Your task to perform on an android device: Install the Lyft app Image 0: 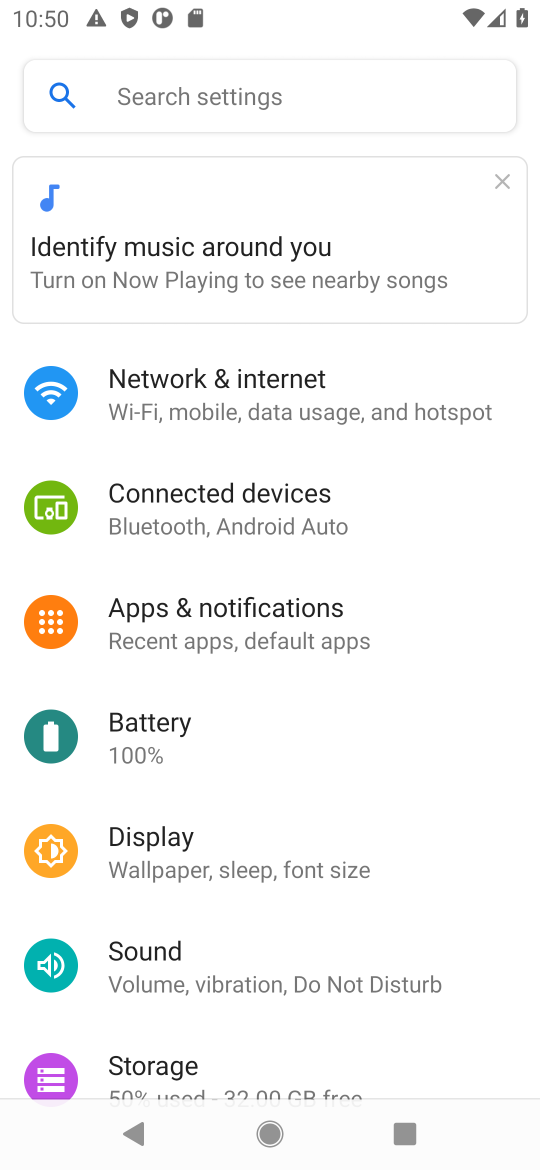
Step 0: press home button
Your task to perform on an android device: Install the Lyft app Image 1: 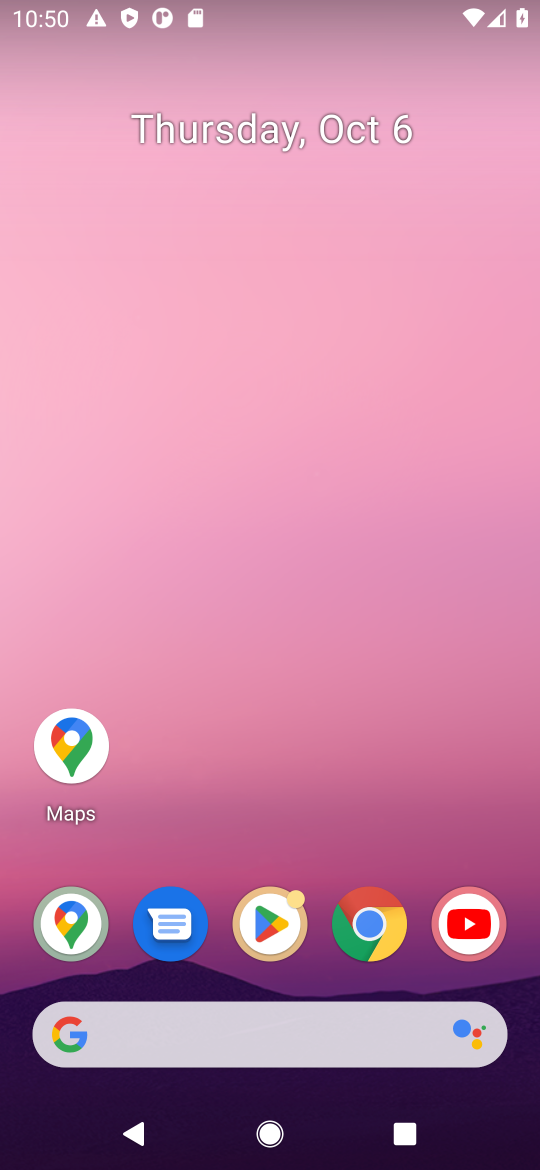
Step 1: drag from (230, 856) to (341, 253)
Your task to perform on an android device: Install the Lyft app Image 2: 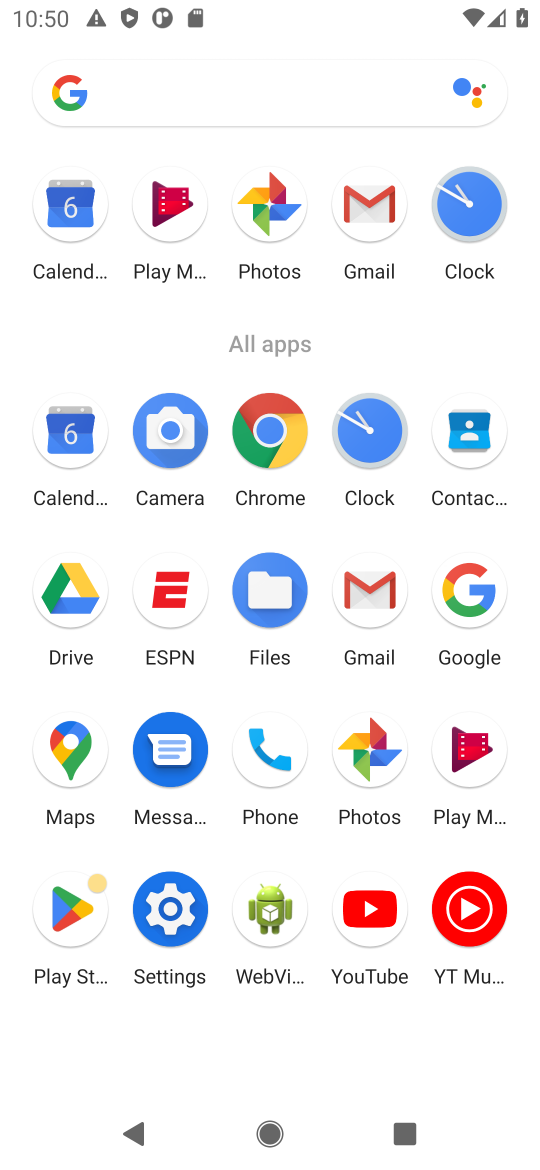
Step 2: click (63, 917)
Your task to perform on an android device: Install the Lyft app Image 3: 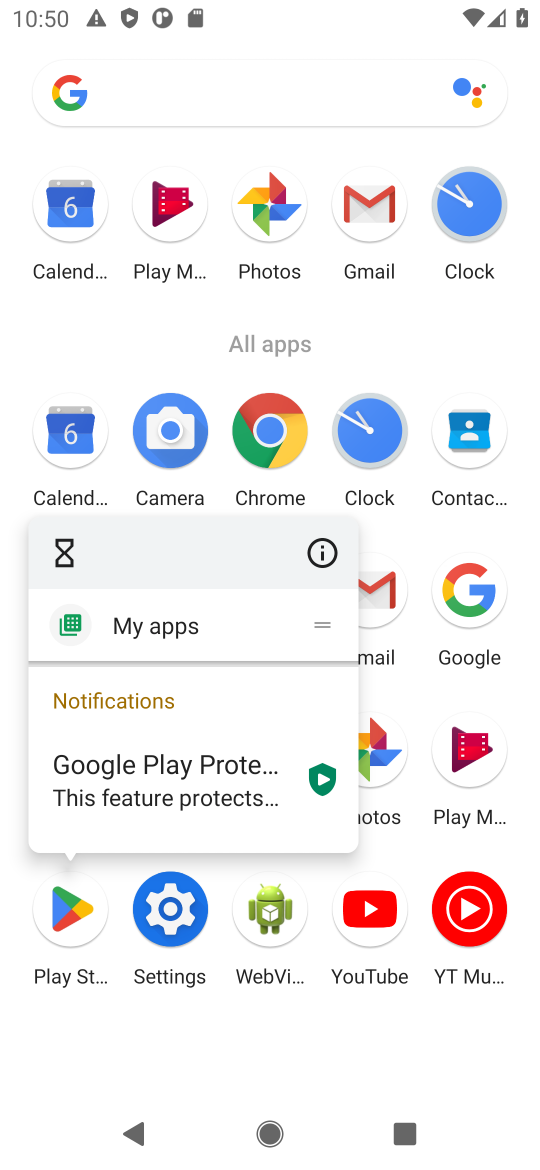
Step 3: click (75, 909)
Your task to perform on an android device: Install the Lyft app Image 4: 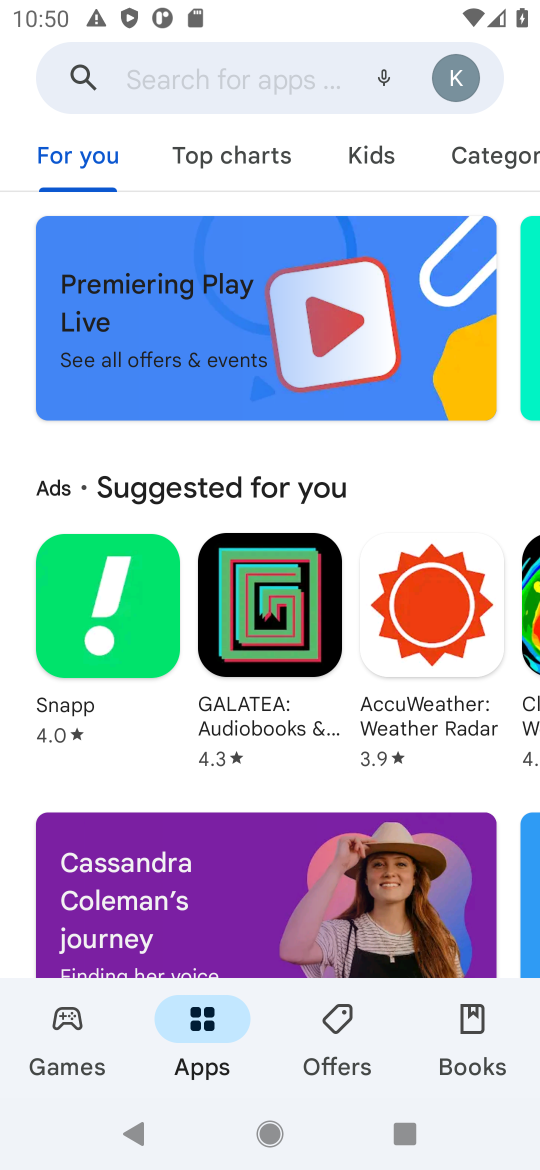
Step 4: click (285, 58)
Your task to perform on an android device: Install the Lyft app Image 5: 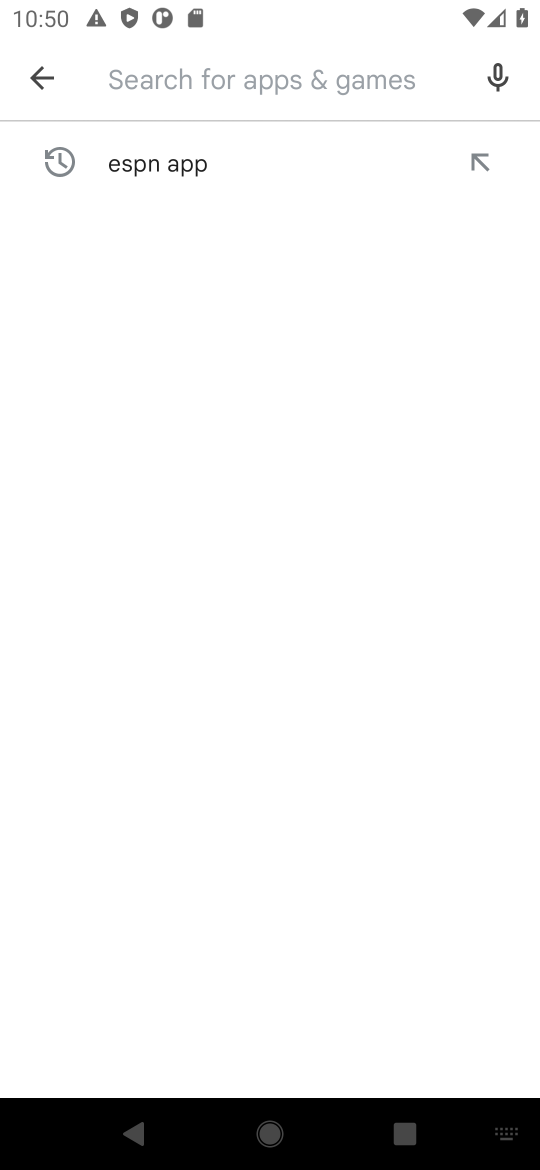
Step 5: type "Lyft app"
Your task to perform on an android device: Install the Lyft app Image 6: 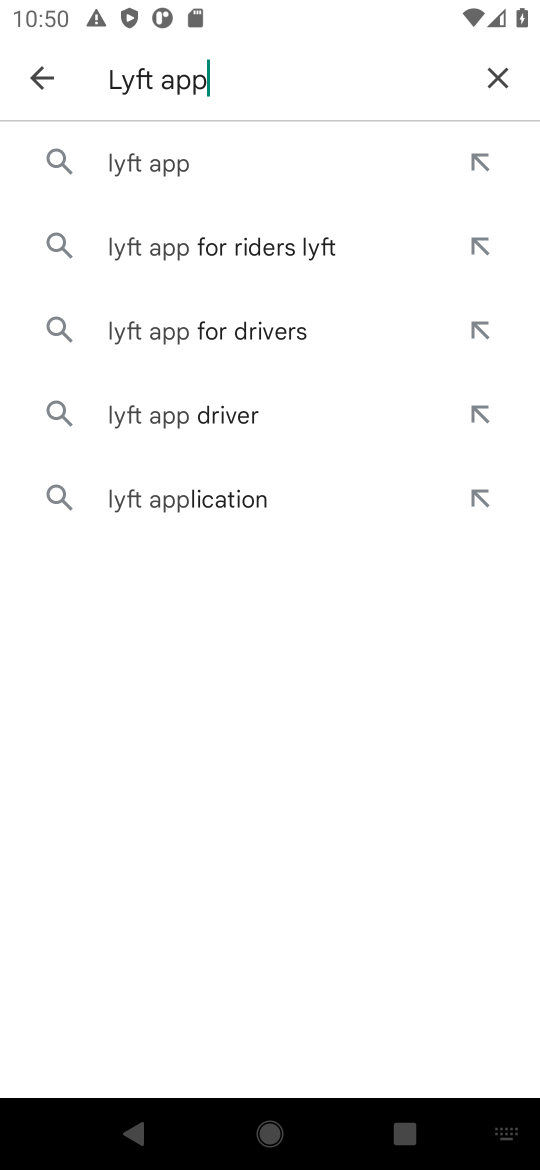
Step 6: click (163, 165)
Your task to perform on an android device: Install the Lyft app Image 7: 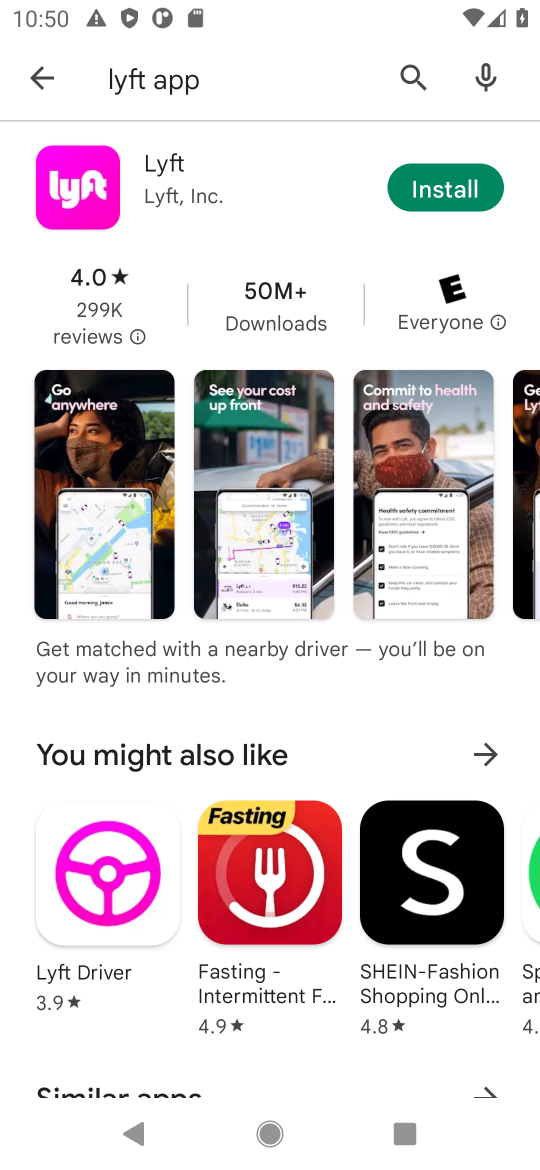
Step 7: click (449, 194)
Your task to perform on an android device: Install the Lyft app Image 8: 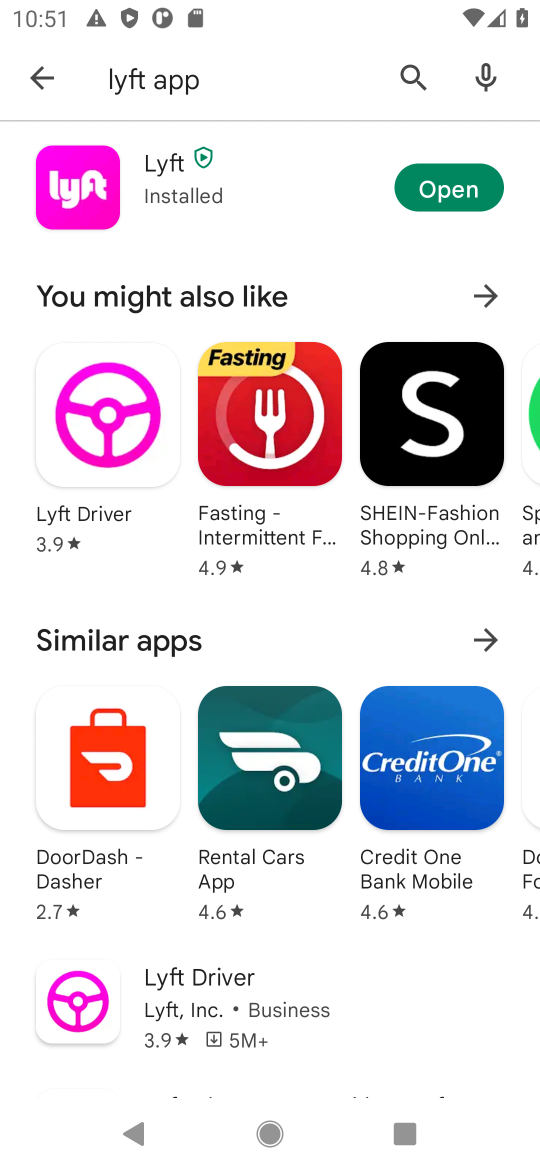
Step 8: task complete